Your task to perform on an android device: clear all cookies in the chrome app Image 0: 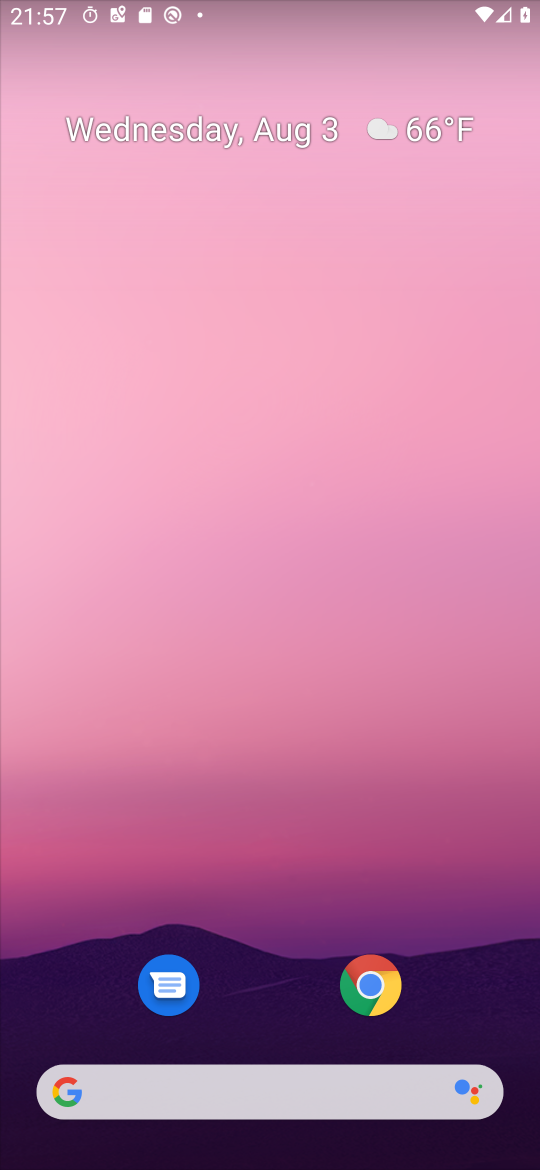
Step 0: click (389, 971)
Your task to perform on an android device: clear all cookies in the chrome app Image 1: 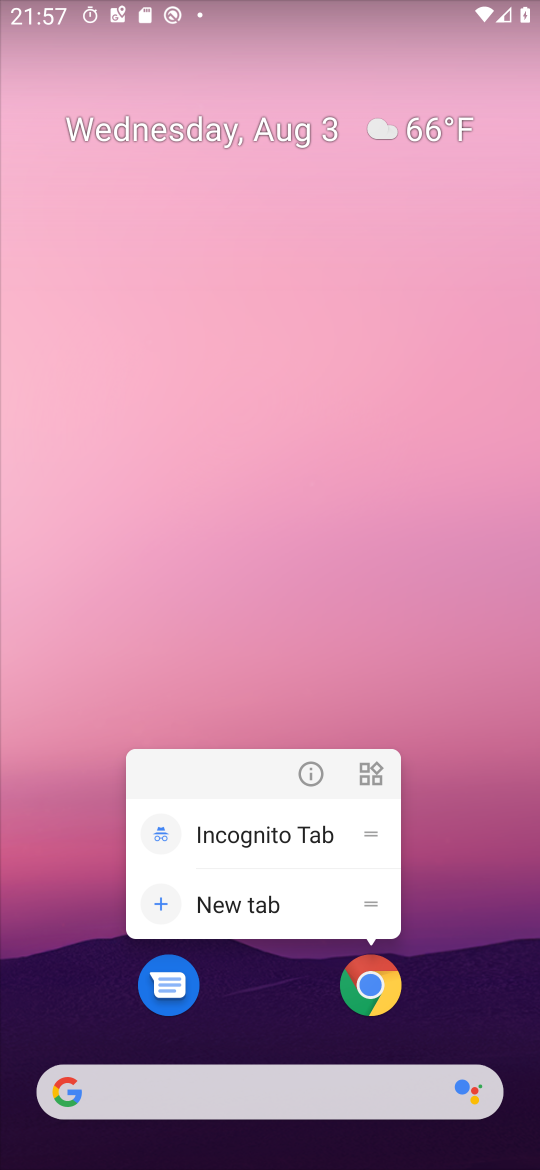
Step 1: click (389, 971)
Your task to perform on an android device: clear all cookies in the chrome app Image 2: 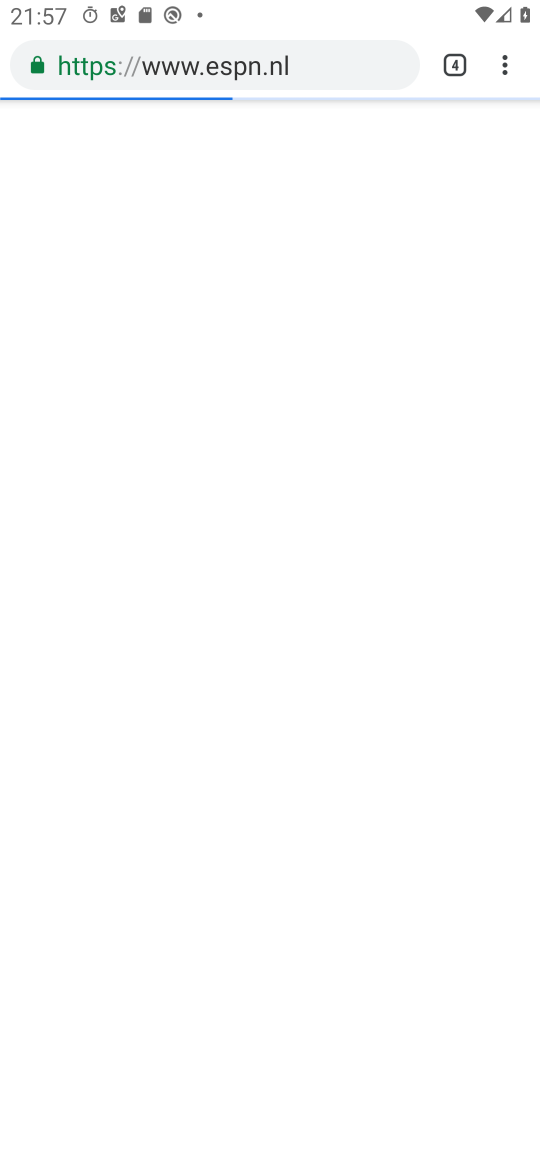
Step 2: click (500, 54)
Your task to perform on an android device: clear all cookies in the chrome app Image 3: 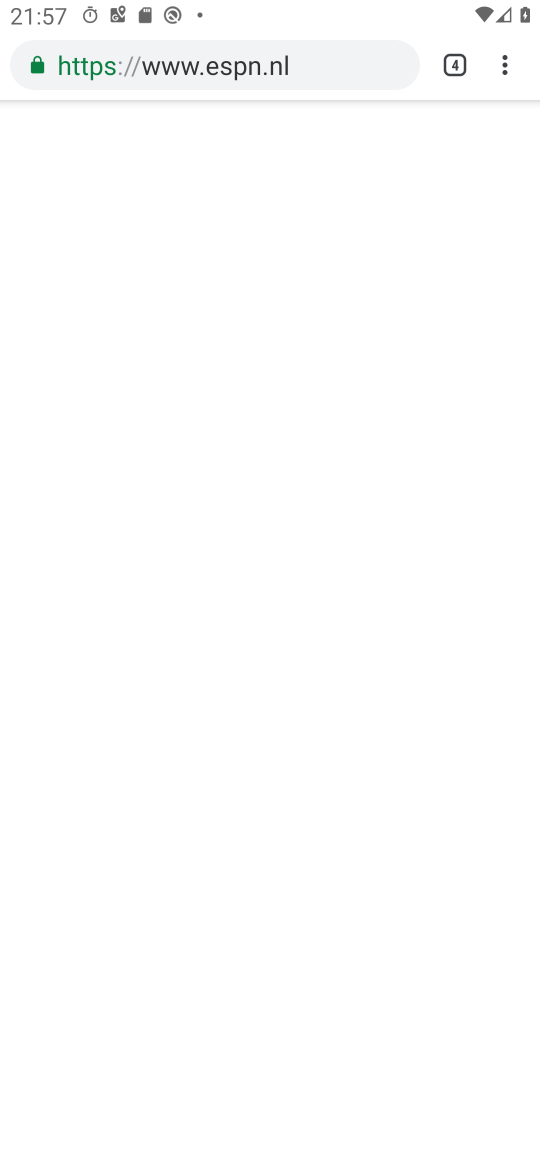
Step 3: click (502, 71)
Your task to perform on an android device: clear all cookies in the chrome app Image 4: 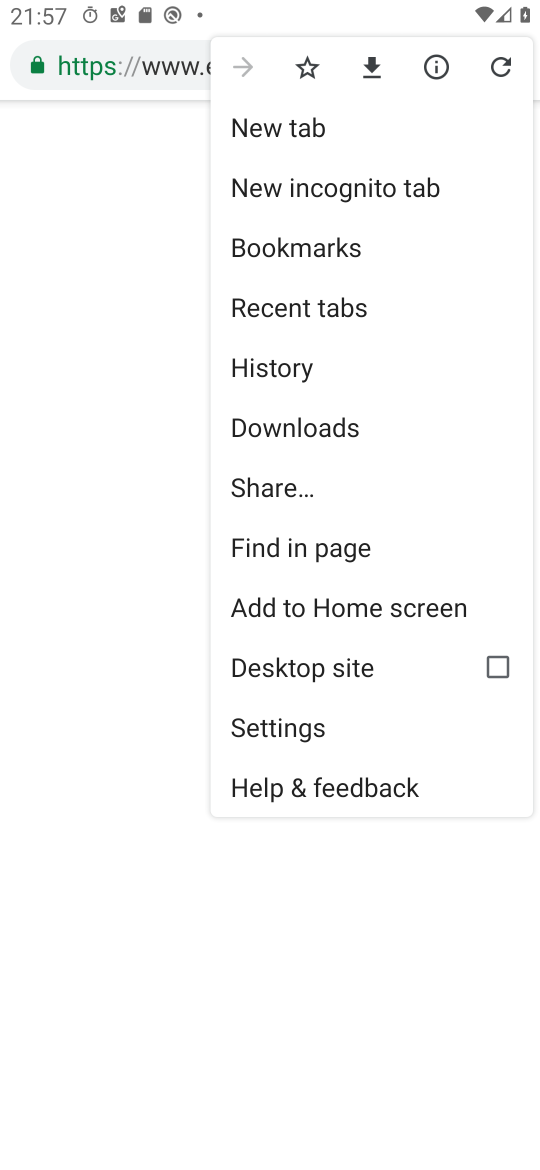
Step 4: click (317, 361)
Your task to perform on an android device: clear all cookies in the chrome app Image 5: 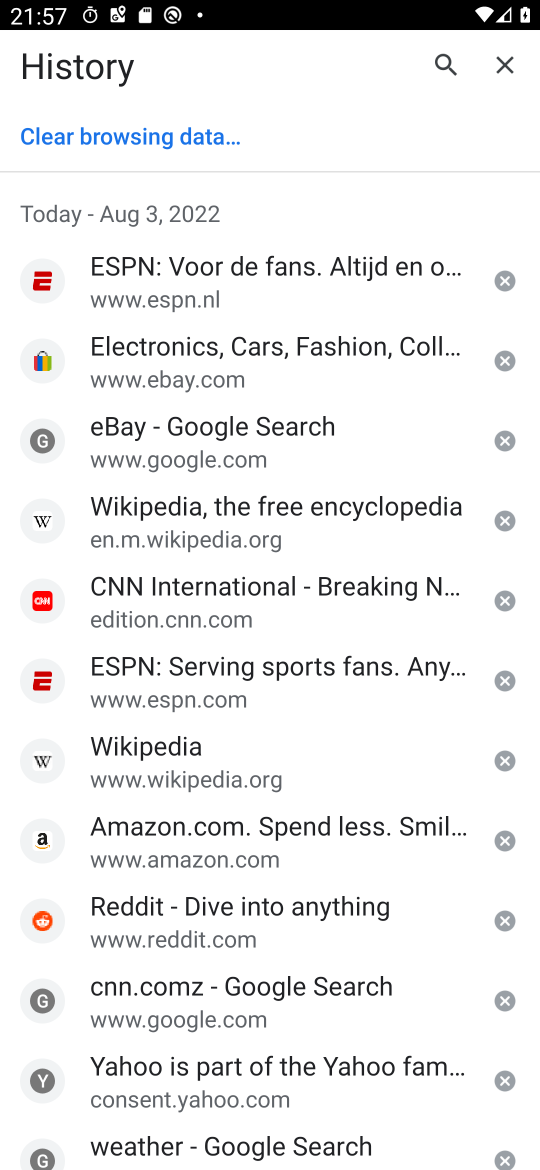
Step 5: click (86, 141)
Your task to perform on an android device: clear all cookies in the chrome app Image 6: 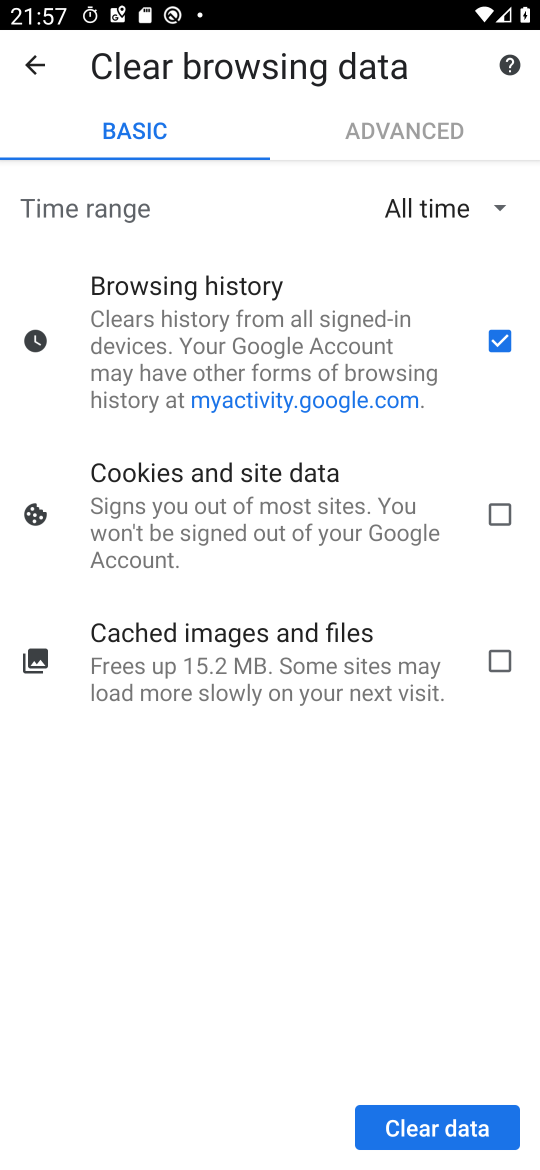
Step 6: click (435, 1111)
Your task to perform on an android device: clear all cookies in the chrome app Image 7: 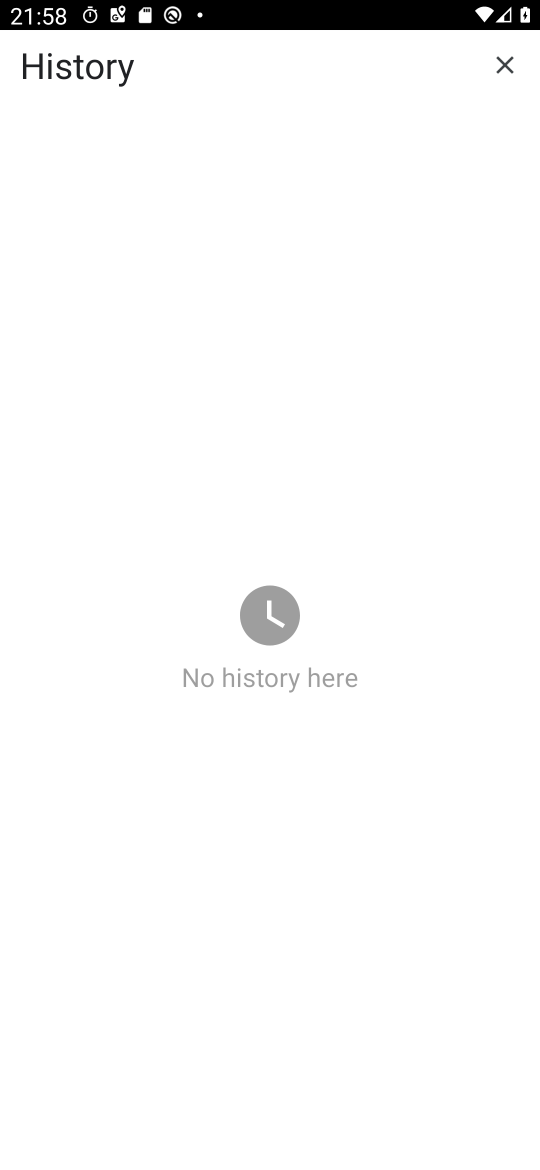
Step 7: task complete